Your task to perform on an android device: open app "Upside-Cash back on gas & food" Image 0: 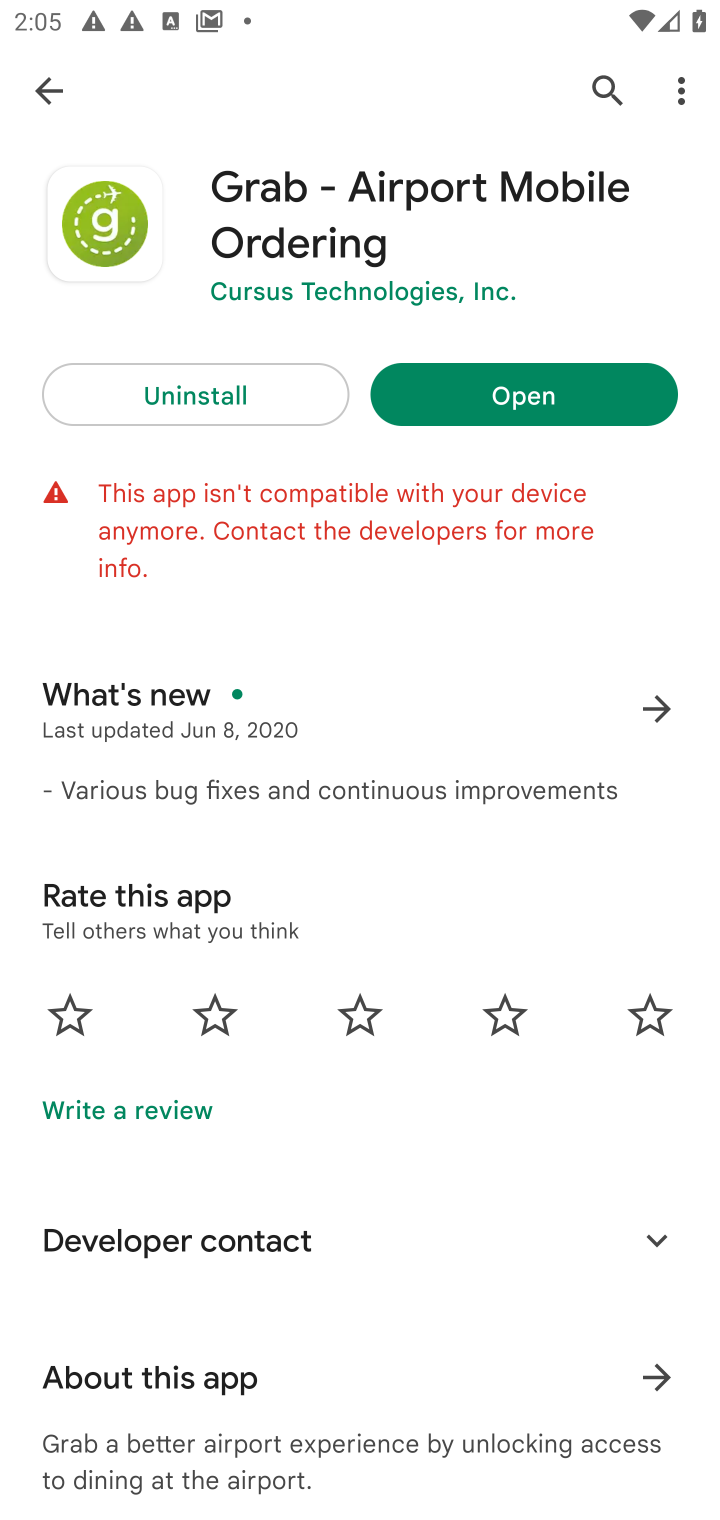
Step 0: press home button
Your task to perform on an android device: open app "Upside-Cash back on gas & food" Image 1: 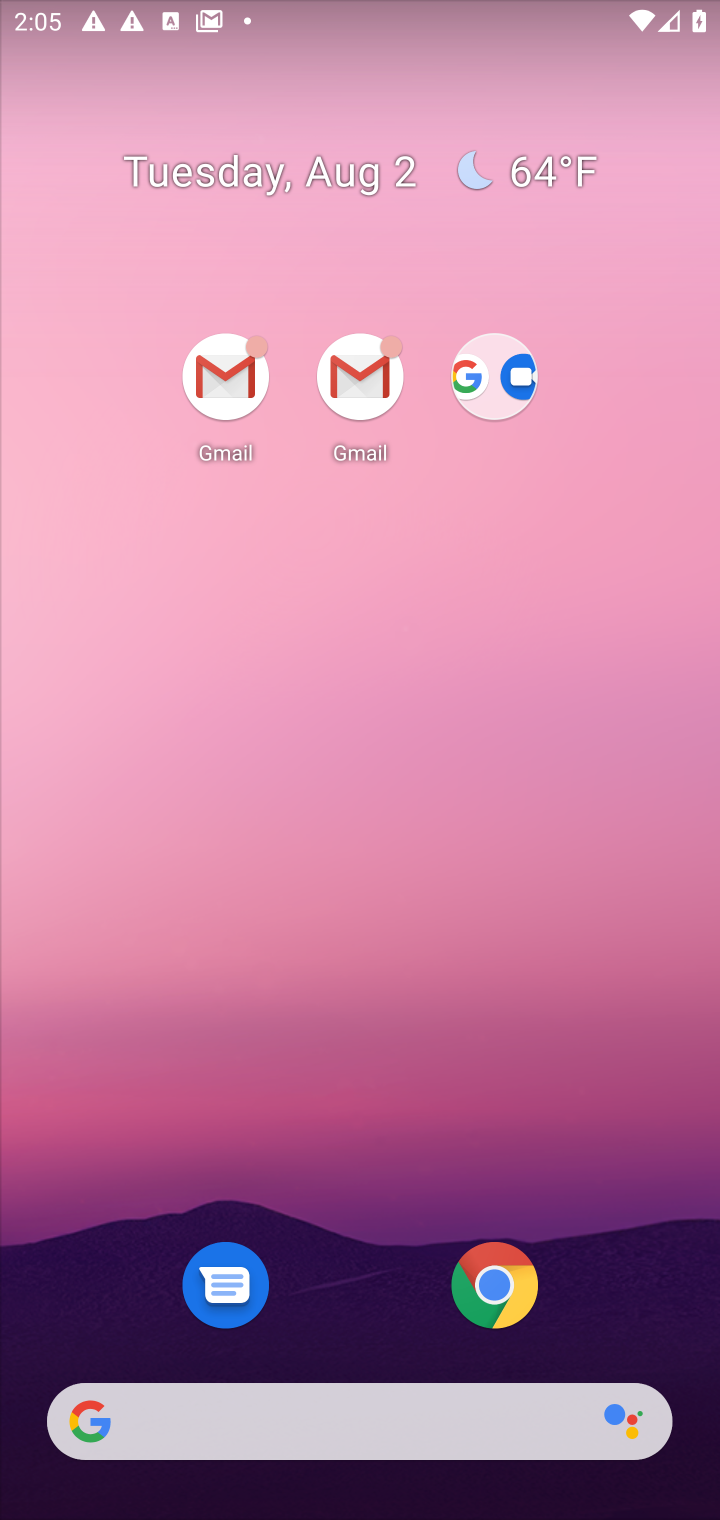
Step 1: drag from (611, 1208) to (412, 134)
Your task to perform on an android device: open app "Upside-Cash back on gas & food" Image 2: 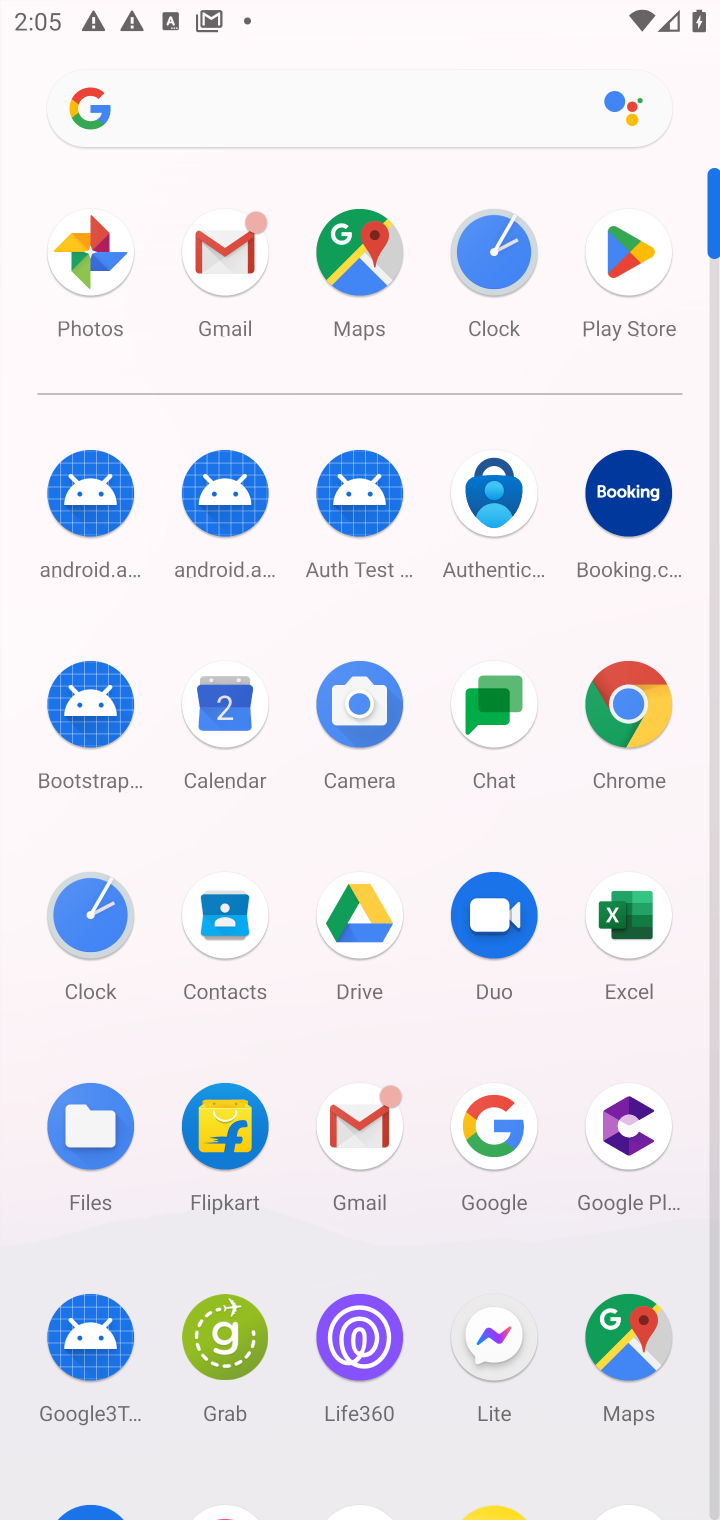
Step 2: drag from (446, 1221) to (406, 525)
Your task to perform on an android device: open app "Upside-Cash back on gas & food" Image 3: 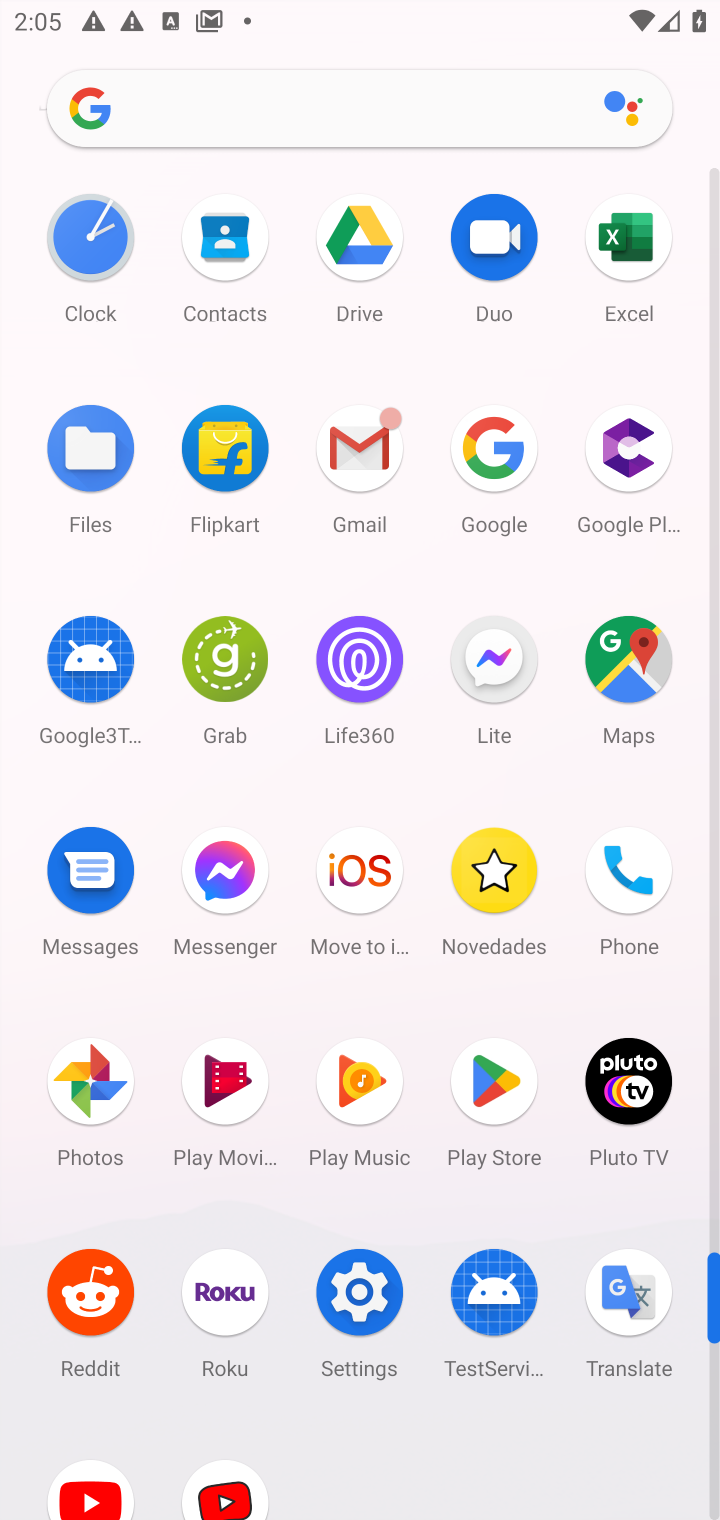
Step 3: click (502, 1102)
Your task to perform on an android device: open app "Upside-Cash back on gas & food" Image 4: 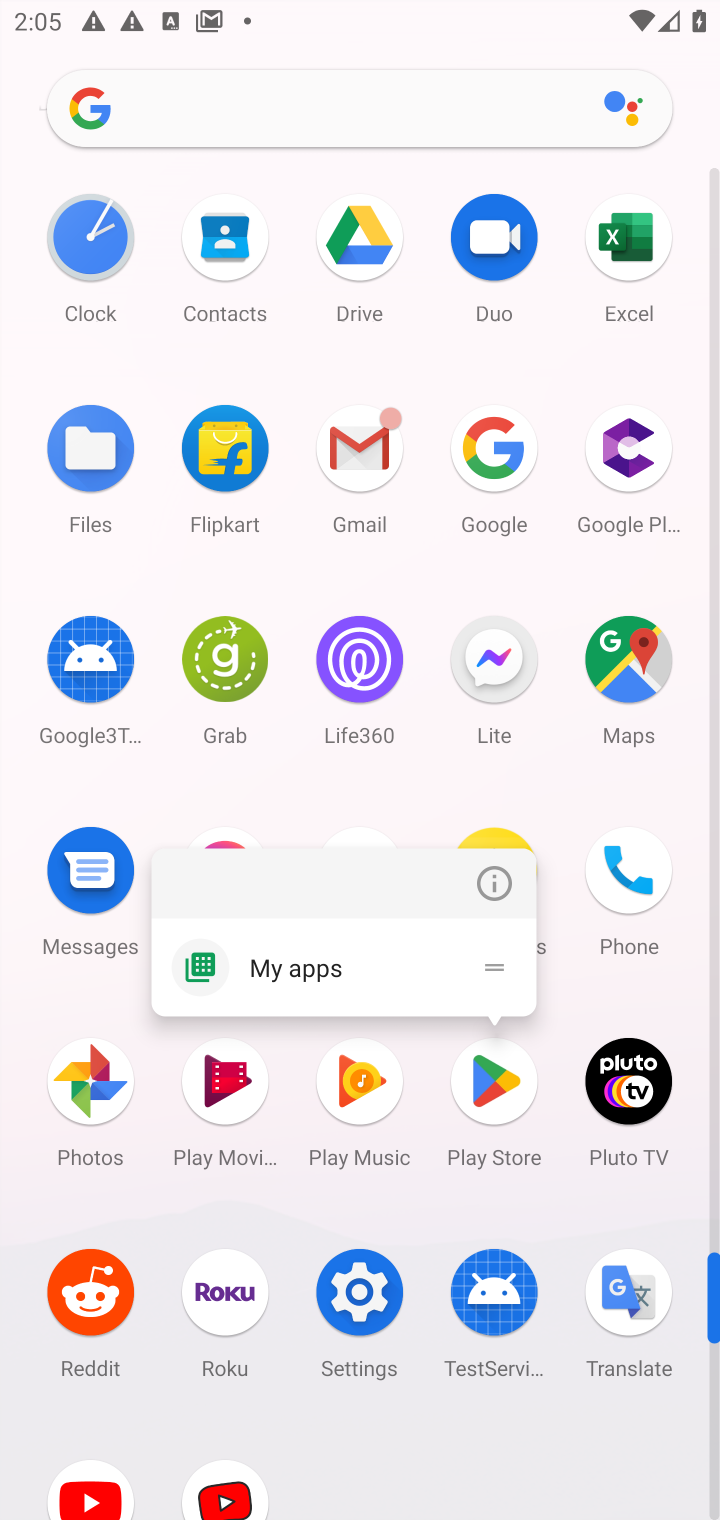
Step 4: click (481, 1073)
Your task to perform on an android device: open app "Upside-Cash back on gas & food" Image 5: 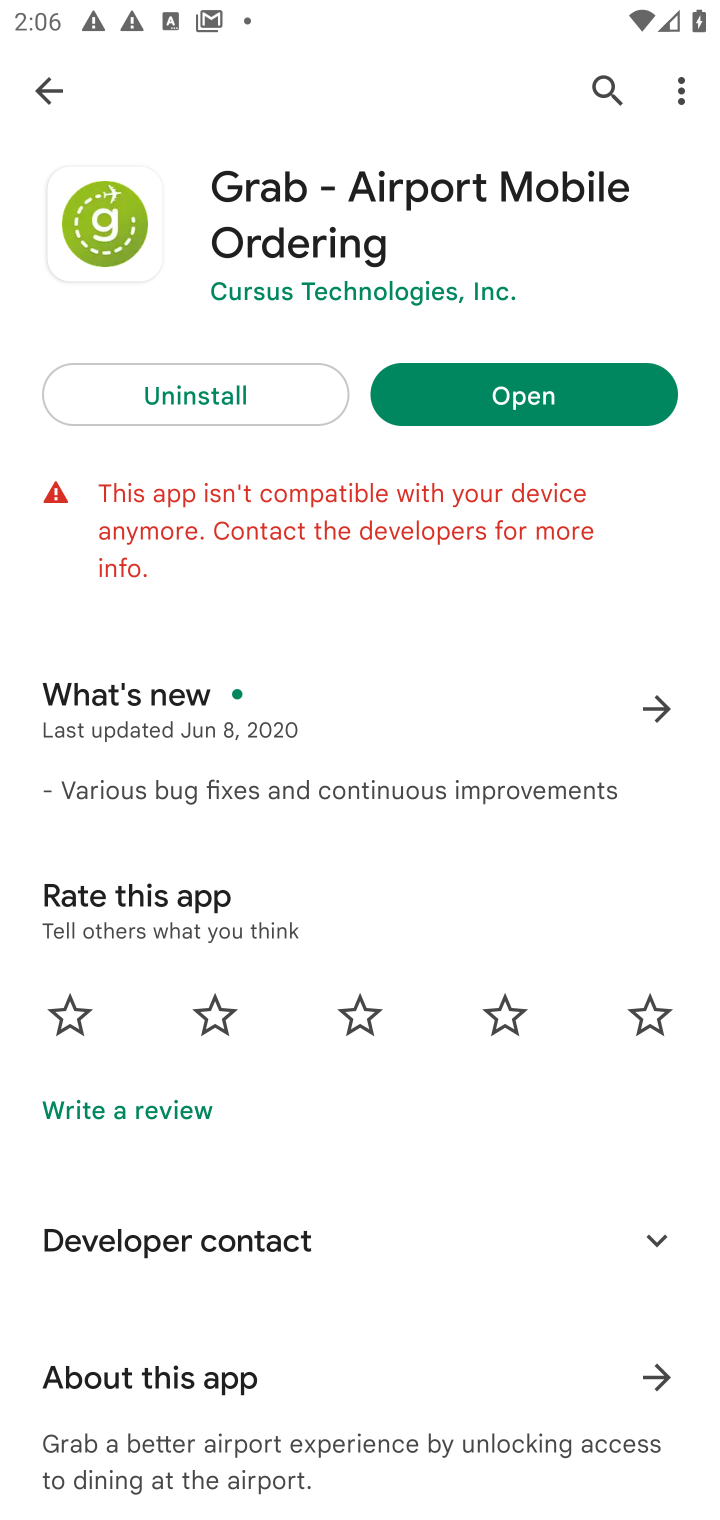
Step 5: click (596, 87)
Your task to perform on an android device: open app "Upside-Cash back on gas & food" Image 6: 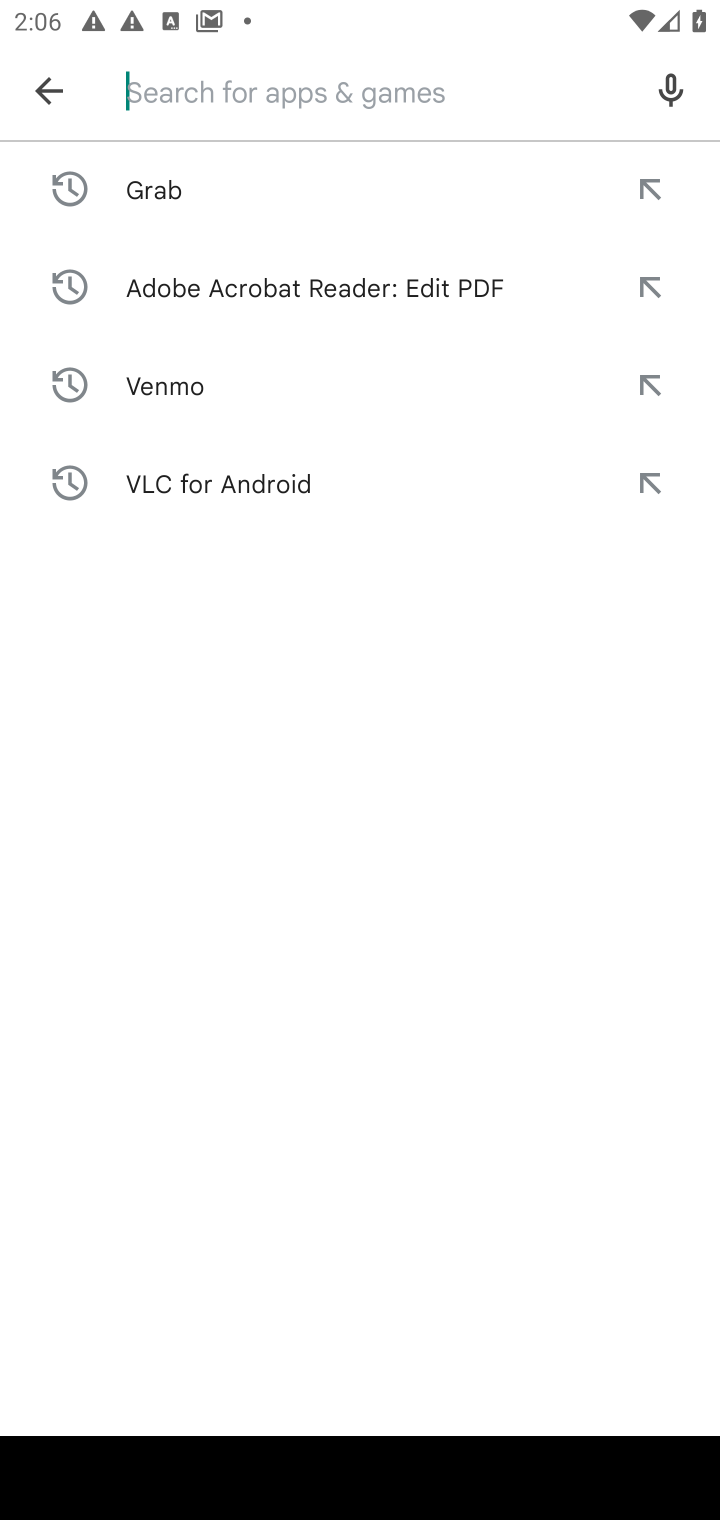
Step 6: type "Upside - Cash back on gas & food"
Your task to perform on an android device: open app "Upside-Cash back on gas & food" Image 7: 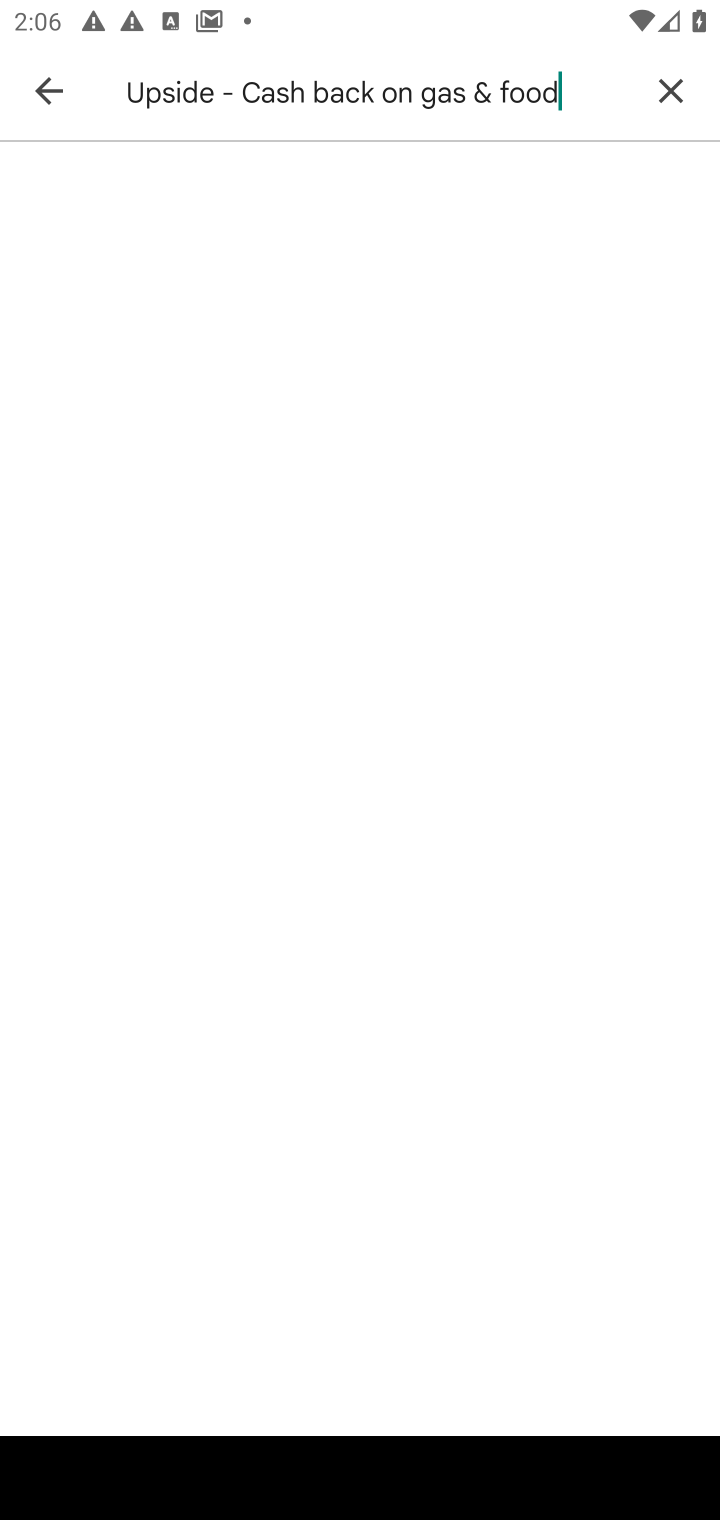
Step 7: press enter
Your task to perform on an android device: open app "Upside-Cash back on gas & food" Image 8: 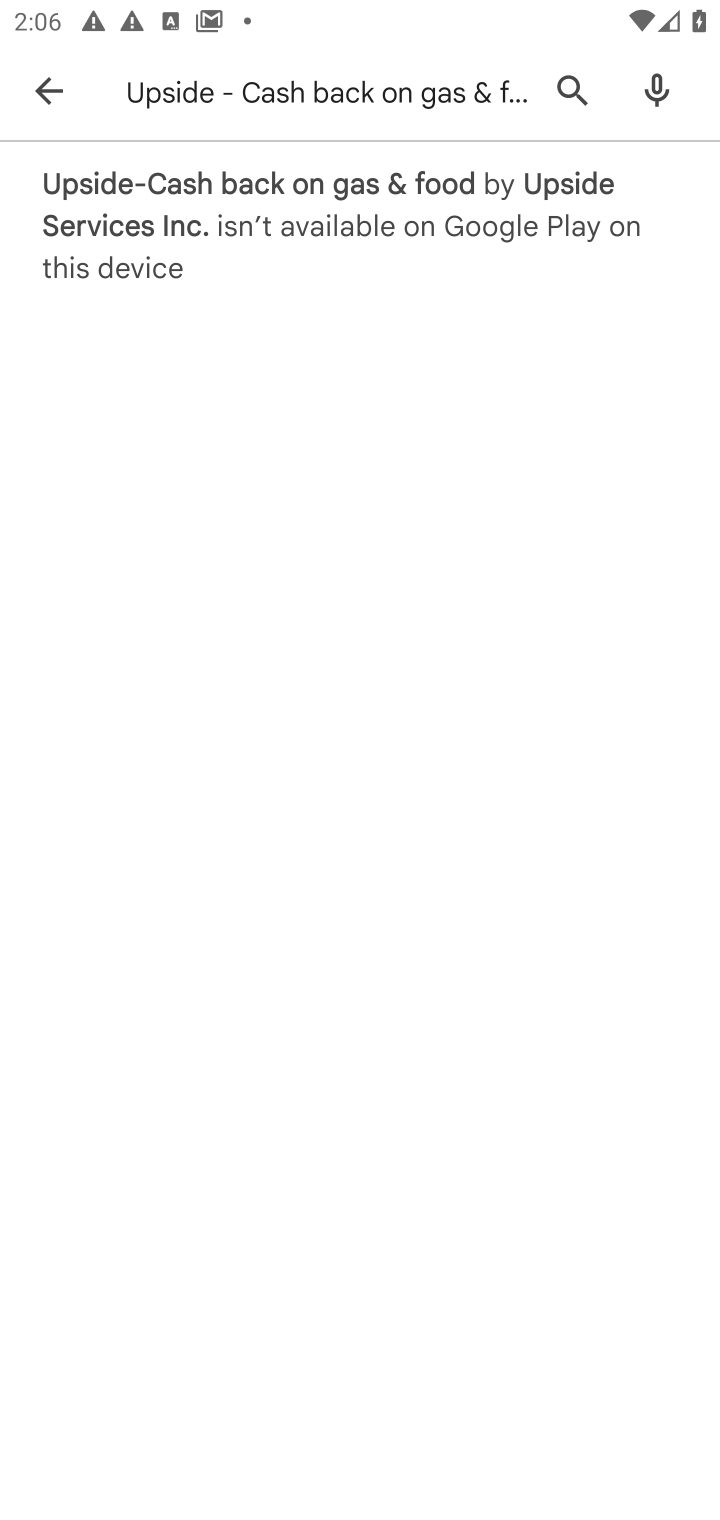
Step 8: task complete